Your task to perform on an android device: see tabs open on other devices in the chrome app Image 0: 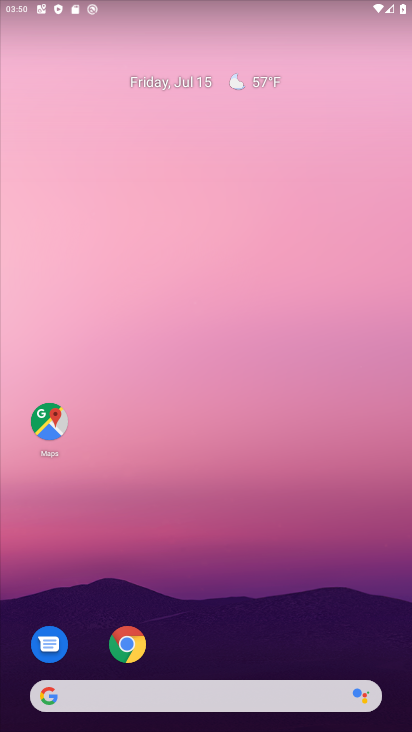
Step 0: click (125, 648)
Your task to perform on an android device: see tabs open on other devices in the chrome app Image 1: 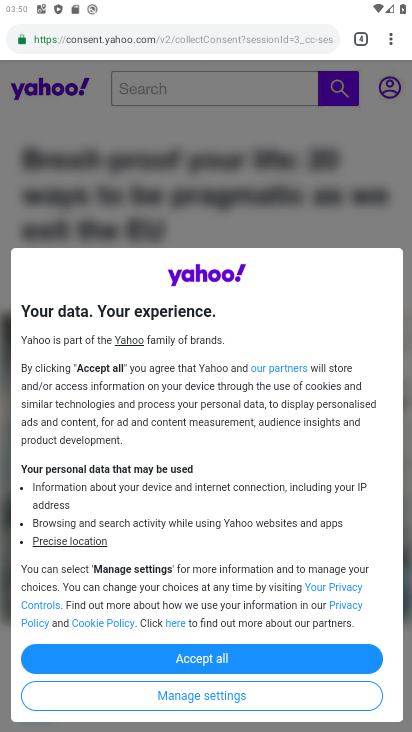
Step 1: click (394, 37)
Your task to perform on an android device: see tabs open on other devices in the chrome app Image 2: 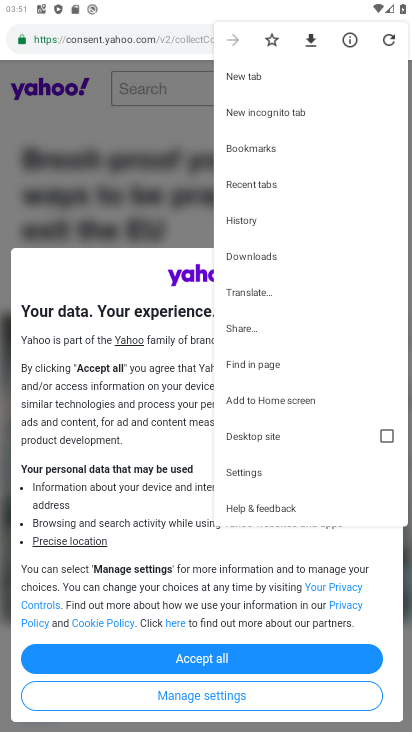
Step 2: click (269, 194)
Your task to perform on an android device: see tabs open on other devices in the chrome app Image 3: 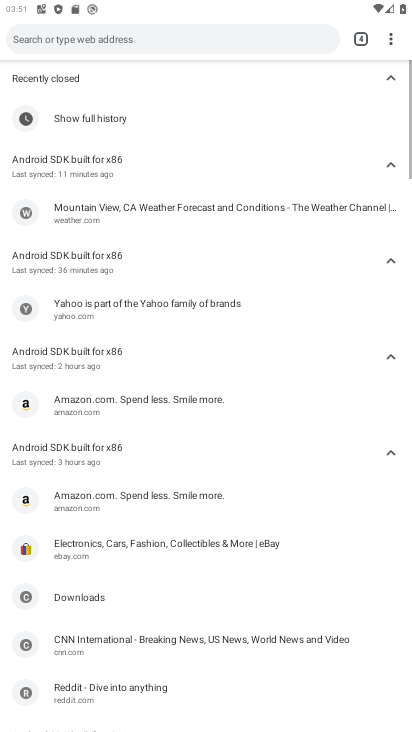
Step 3: task complete